Your task to perform on an android device: open a bookmark in the chrome app Image 0: 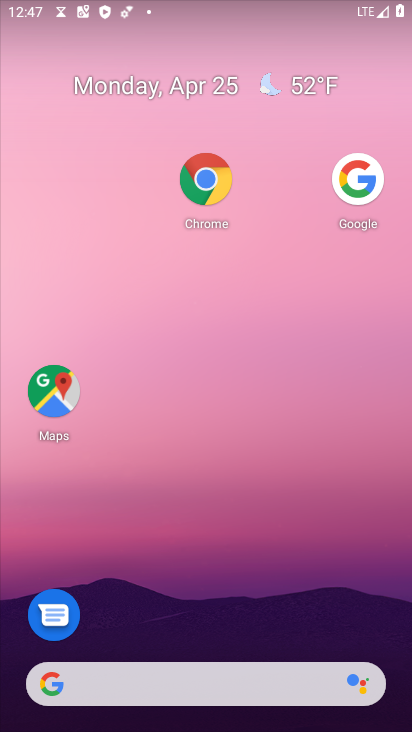
Step 0: drag from (153, 689) to (345, 165)
Your task to perform on an android device: open a bookmark in the chrome app Image 1: 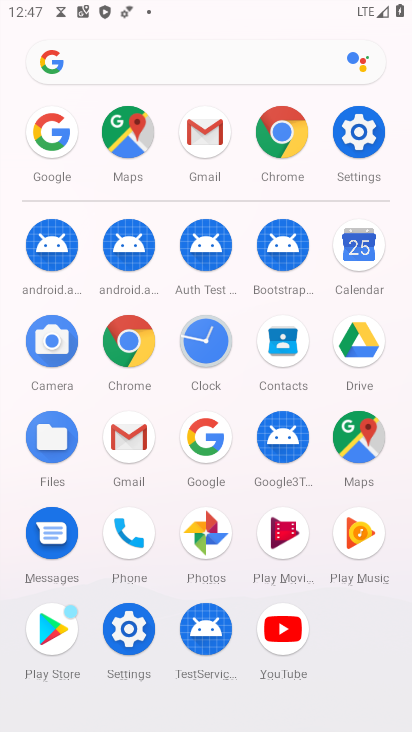
Step 1: click (282, 146)
Your task to perform on an android device: open a bookmark in the chrome app Image 2: 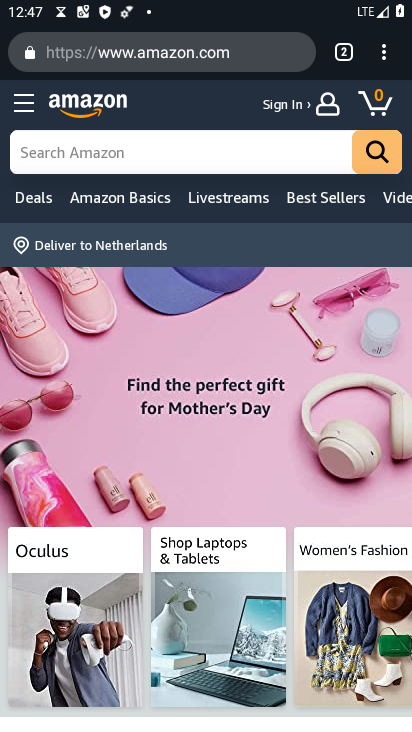
Step 2: task complete